Your task to perform on an android device: Open the map Image 0: 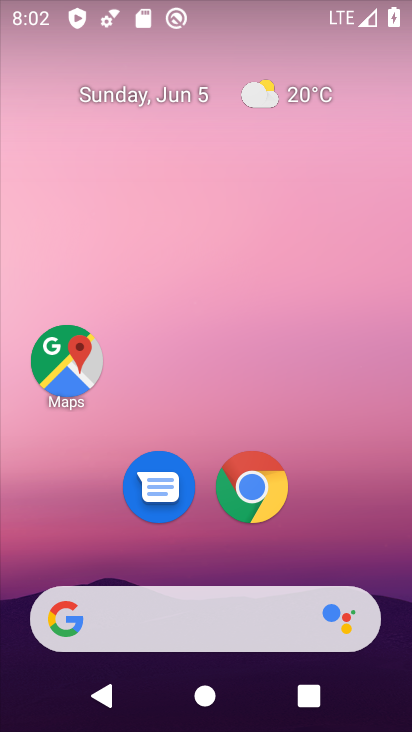
Step 0: click (56, 391)
Your task to perform on an android device: Open the map Image 1: 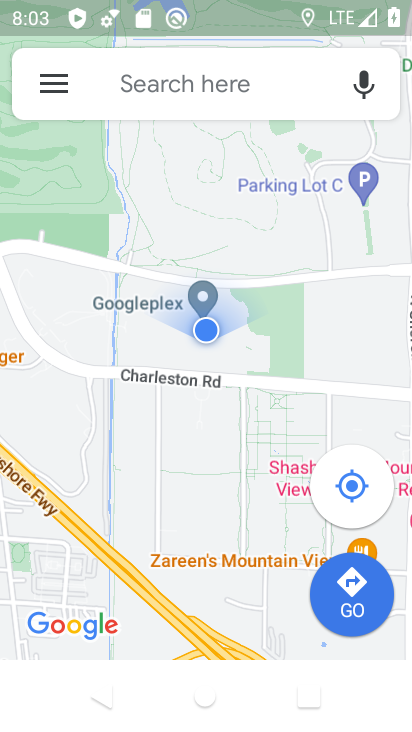
Step 1: task complete